Your task to perform on an android device: Open Google Image 0: 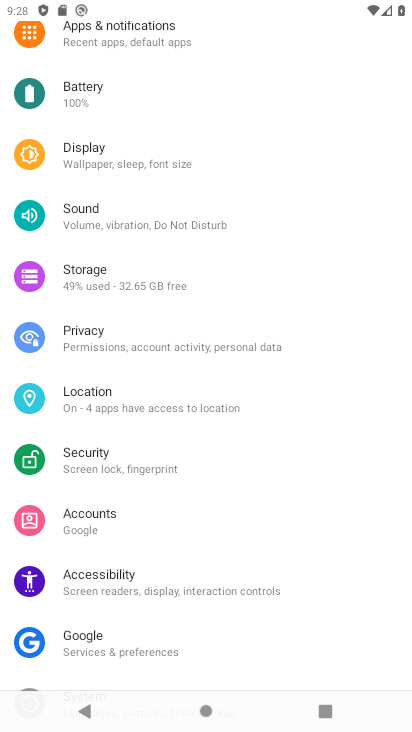
Step 0: press back button
Your task to perform on an android device: Open Google Image 1: 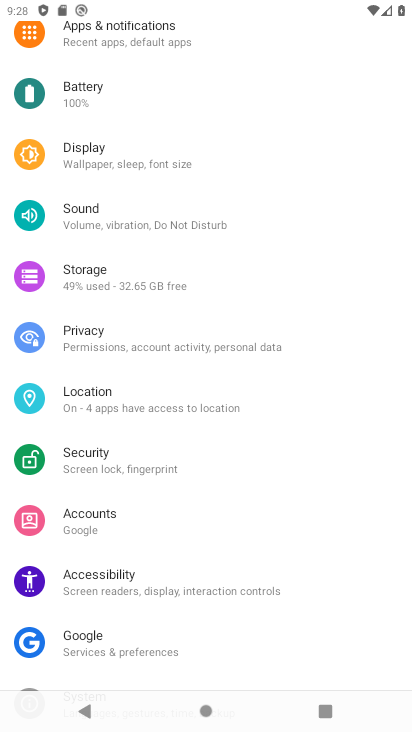
Step 1: press back button
Your task to perform on an android device: Open Google Image 2: 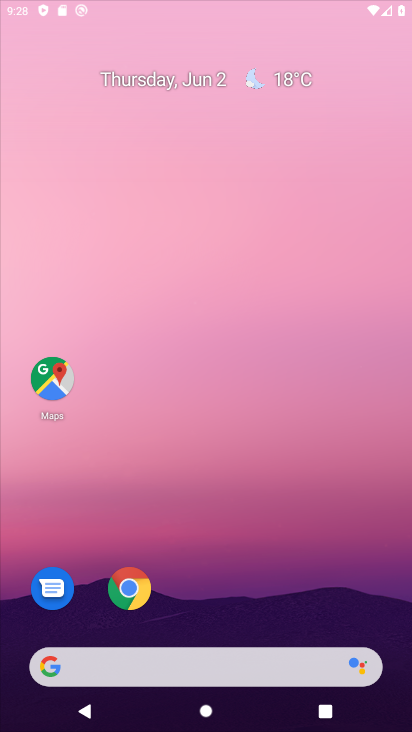
Step 2: press back button
Your task to perform on an android device: Open Google Image 3: 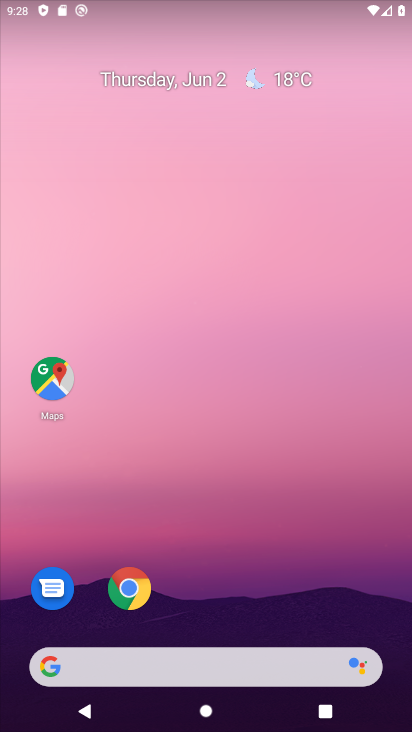
Step 3: drag from (258, 493) to (196, 92)
Your task to perform on an android device: Open Google Image 4: 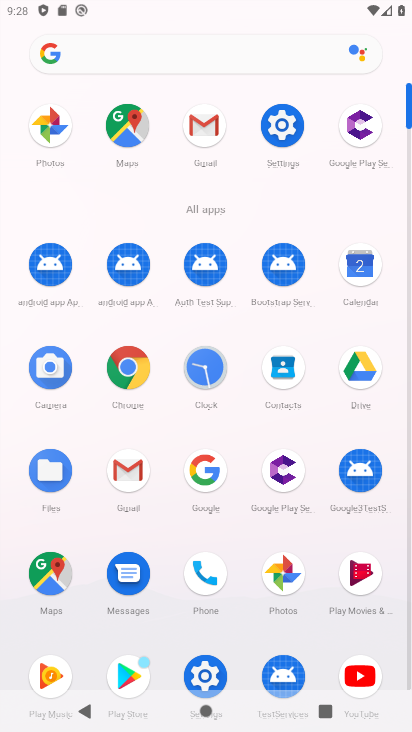
Step 4: click (203, 468)
Your task to perform on an android device: Open Google Image 5: 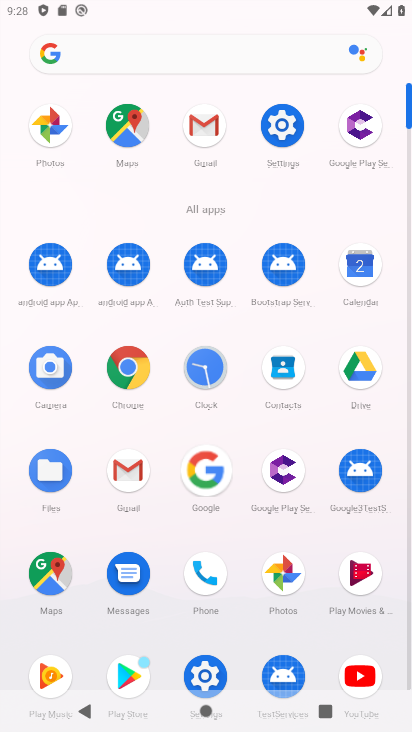
Step 5: click (203, 468)
Your task to perform on an android device: Open Google Image 6: 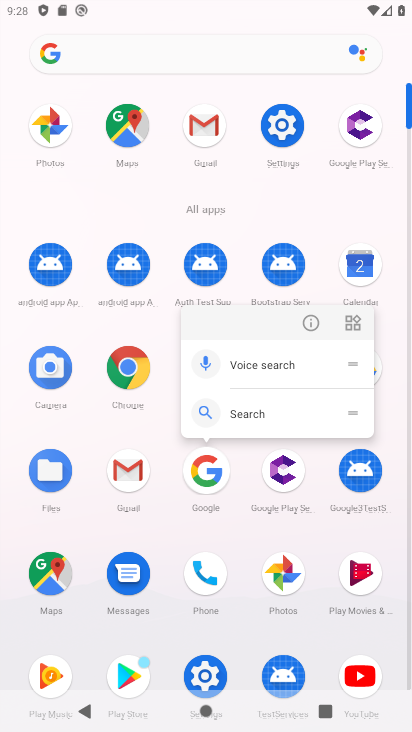
Step 6: click (203, 468)
Your task to perform on an android device: Open Google Image 7: 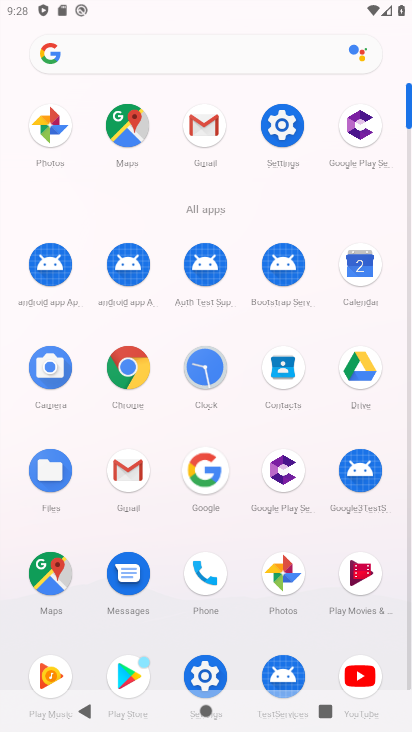
Step 7: click (209, 466)
Your task to perform on an android device: Open Google Image 8: 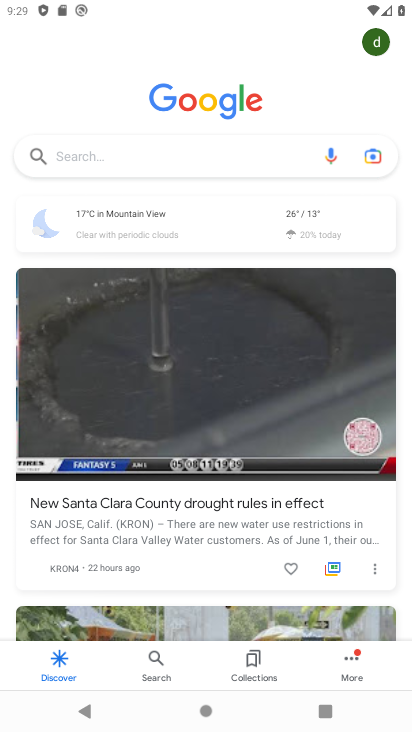
Step 8: task complete